Your task to perform on an android device: When is my next appointment? Image 0: 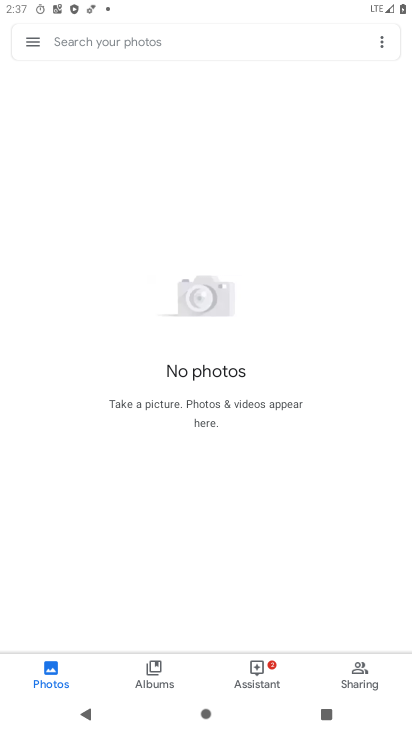
Step 0: press home button
Your task to perform on an android device: When is my next appointment? Image 1: 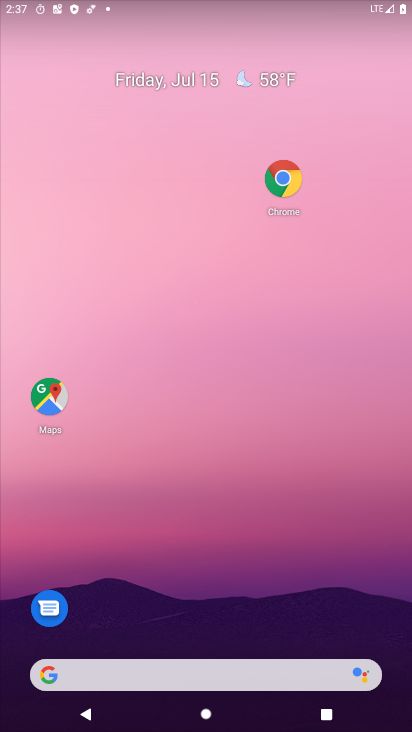
Step 1: drag from (224, 601) to (247, 70)
Your task to perform on an android device: When is my next appointment? Image 2: 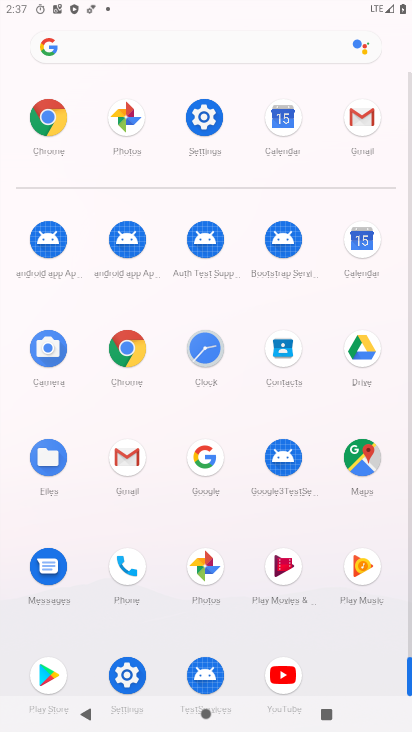
Step 2: click (352, 233)
Your task to perform on an android device: When is my next appointment? Image 3: 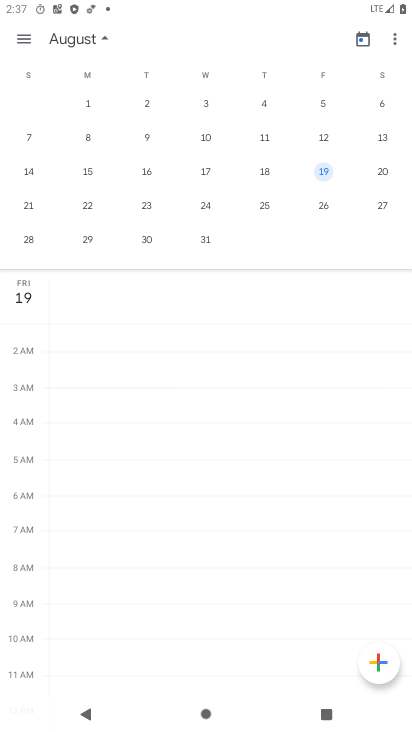
Step 3: click (78, 39)
Your task to perform on an android device: When is my next appointment? Image 4: 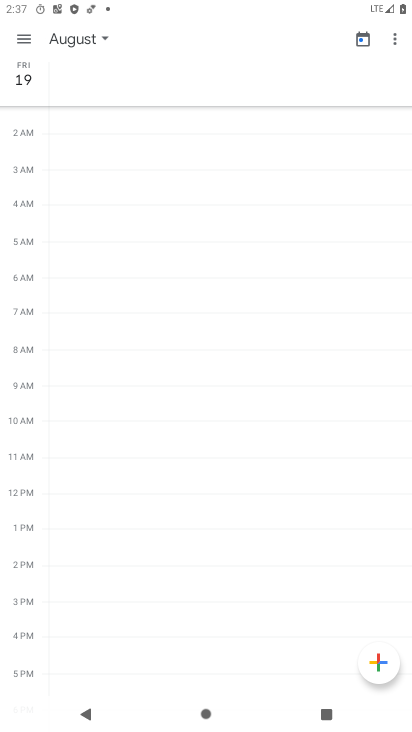
Step 4: click (87, 38)
Your task to perform on an android device: When is my next appointment? Image 5: 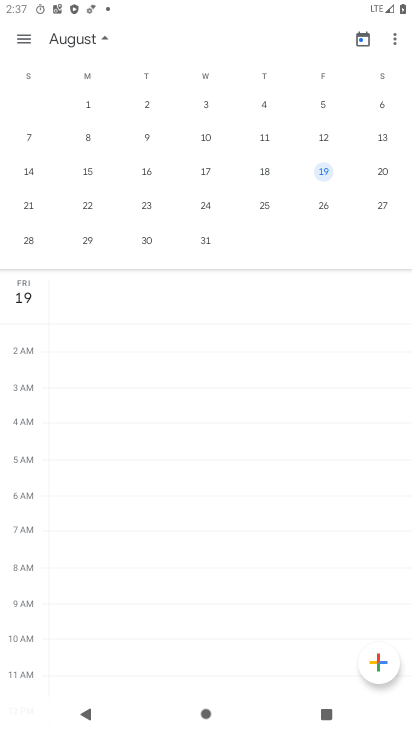
Step 5: drag from (46, 142) to (403, 228)
Your task to perform on an android device: When is my next appointment? Image 6: 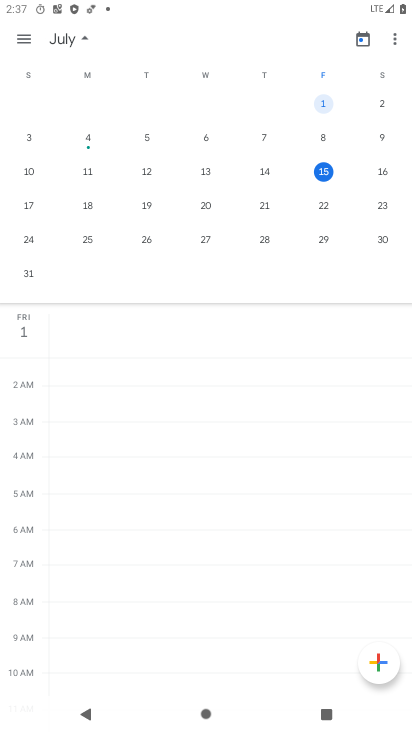
Step 6: click (329, 174)
Your task to perform on an android device: When is my next appointment? Image 7: 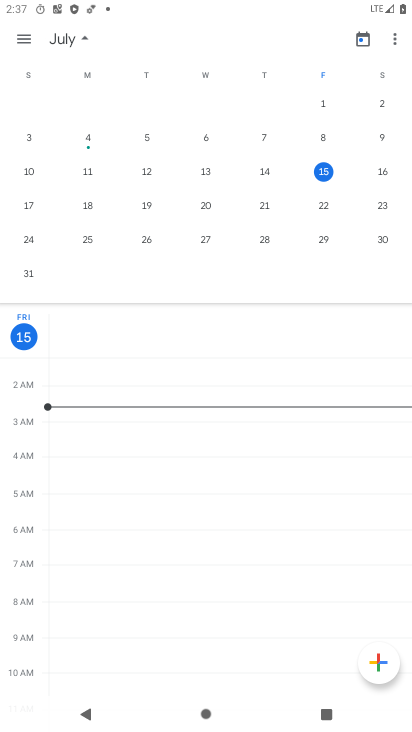
Step 7: click (21, 31)
Your task to perform on an android device: When is my next appointment? Image 8: 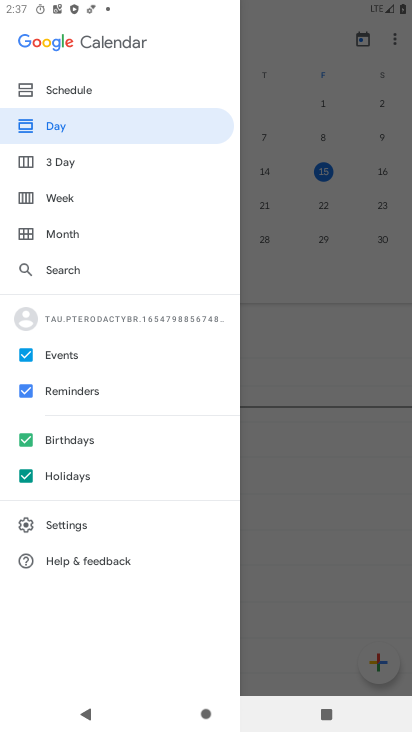
Step 8: click (72, 88)
Your task to perform on an android device: When is my next appointment? Image 9: 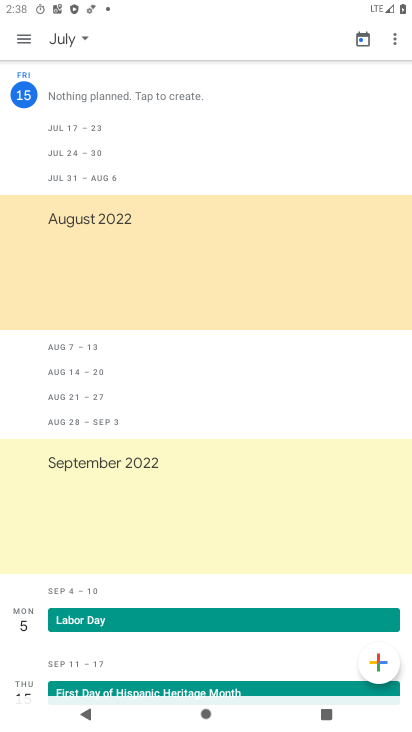
Step 9: task complete